Your task to perform on an android device: Open Chrome and go to the settings page Image 0: 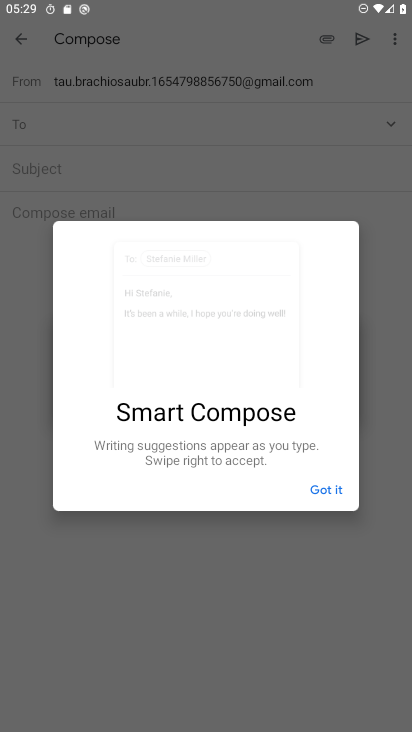
Step 0: press home button
Your task to perform on an android device: Open Chrome and go to the settings page Image 1: 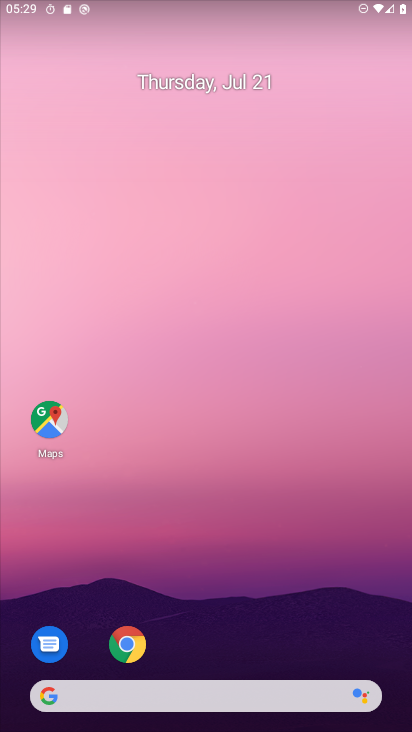
Step 1: click (141, 651)
Your task to perform on an android device: Open Chrome and go to the settings page Image 2: 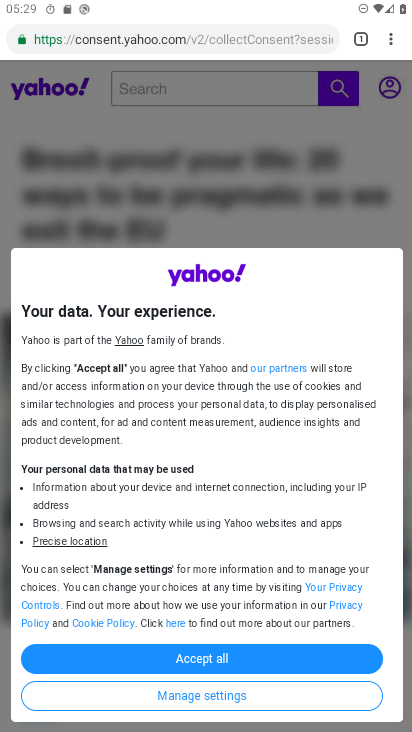
Step 2: click (385, 45)
Your task to perform on an android device: Open Chrome and go to the settings page Image 3: 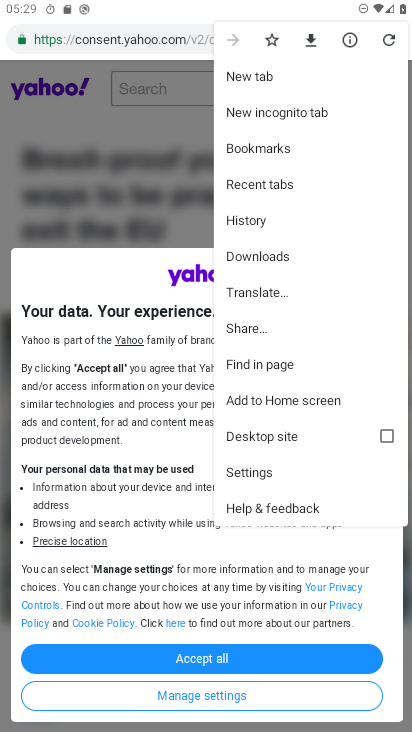
Step 3: click (258, 472)
Your task to perform on an android device: Open Chrome and go to the settings page Image 4: 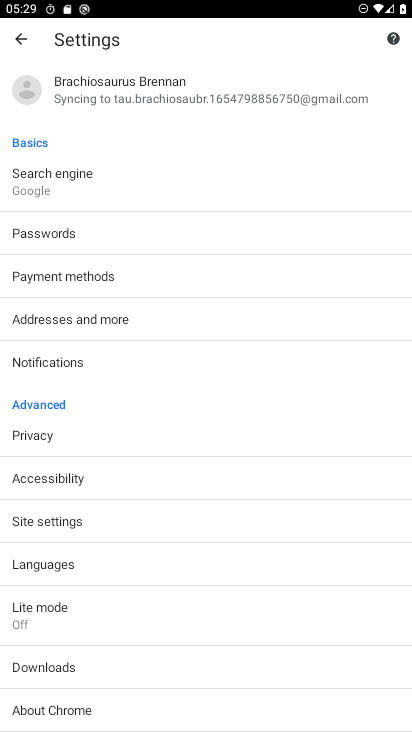
Step 4: task complete